Your task to perform on an android device: toggle sleep mode Image 0: 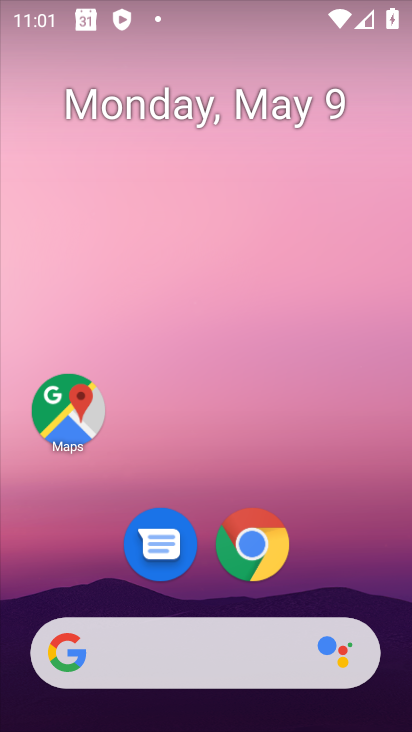
Step 0: drag from (4, 714) to (213, 143)
Your task to perform on an android device: toggle sleep mode Image 1: 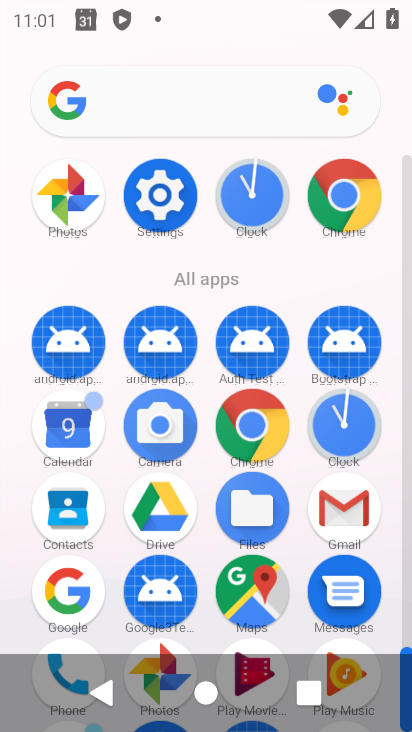
Step 1: click (171, 196)
Your task to perform on an android device: toggle sleep mode Image 2: 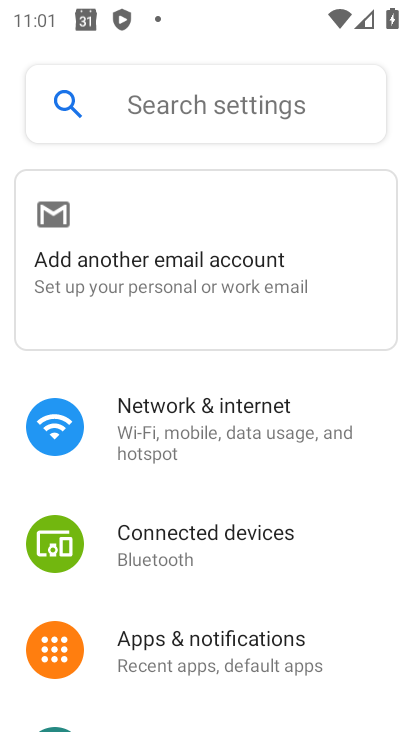
Step 2: drag from (201, 699) to (373, 301)
Your task to perform on an android device: toggle sleep mode Image 3: 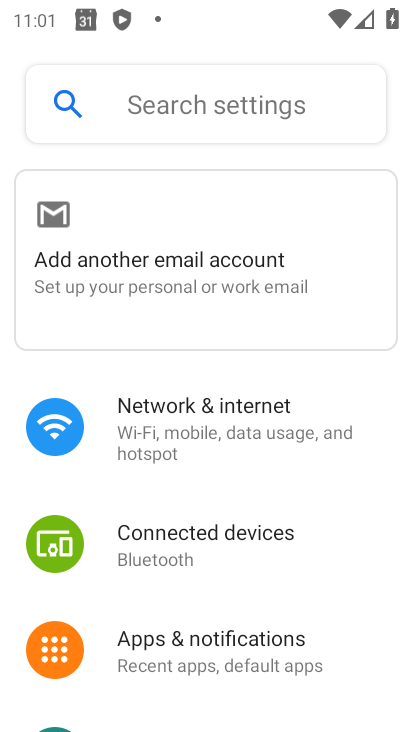
Step 3: drag from (209, 714) to (298, 310)
Your task to perform on an android device: toggle sleep mode Image 4: 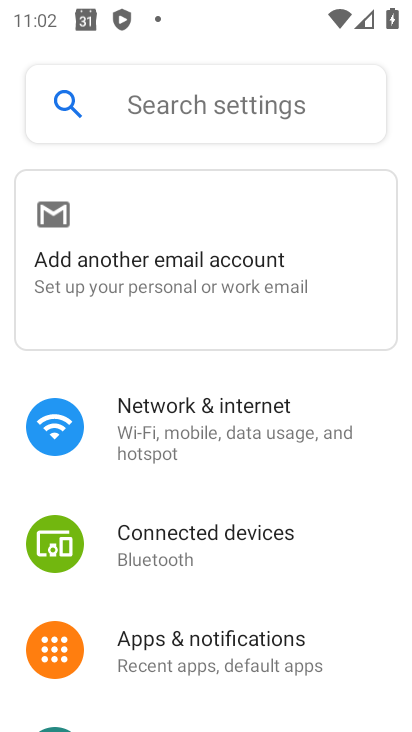
Step 4: drag from (77, 504) to (225, 75)
Your task to perform on an android device: toggle sleep mode Image 5: 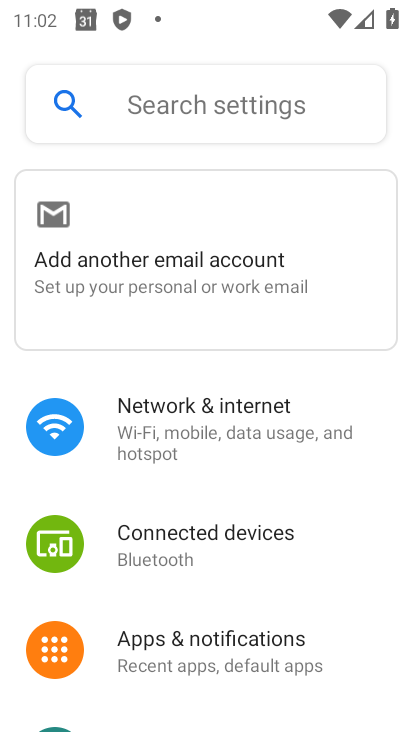
Step 5: drag from (237, 683) to (350, 120)
Your task to perform on an android device: toggle sleep mode Image 6: 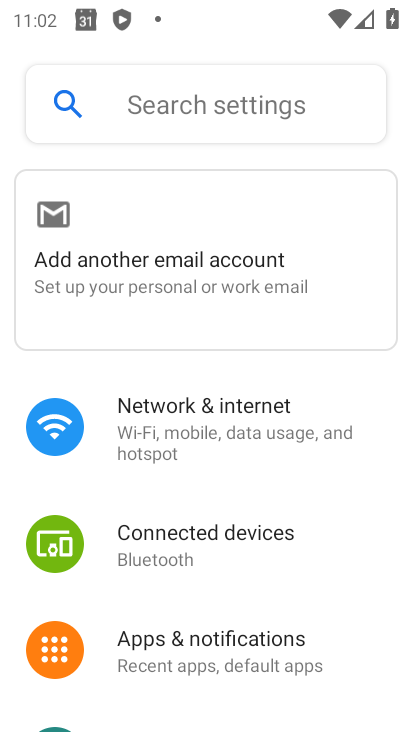
Step 6: drag from (164, 730) to (238, 188)
Your task to perform on an android device: toggle sleep mode Image 7: 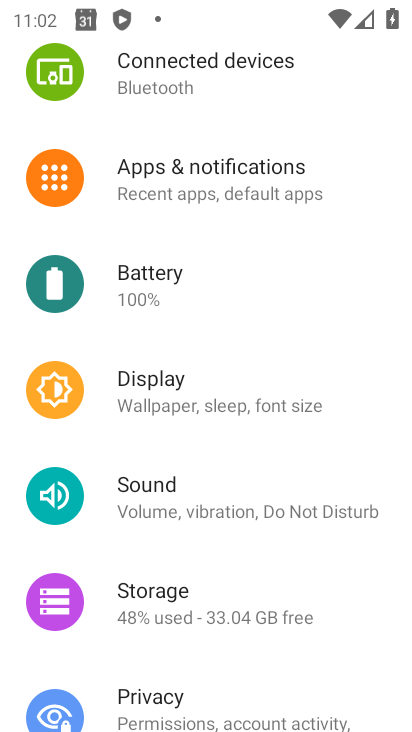
Step 7: click (177, 400)
Your task to perform on an android device: toggle sleep mode Image 8: 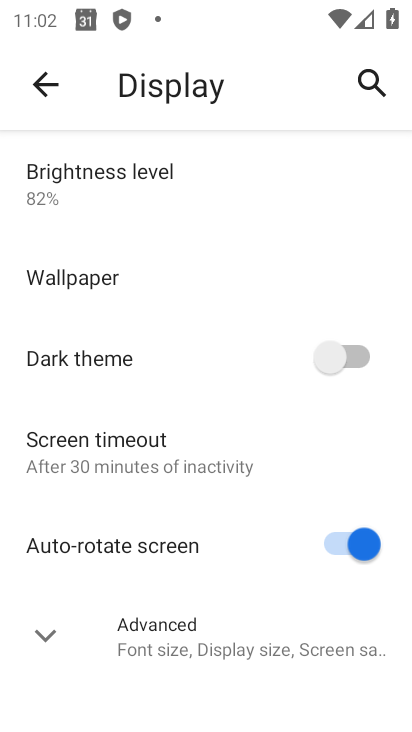
Step 8: task complete